Your task to perform on an android device: Open Google Maps Image 0: 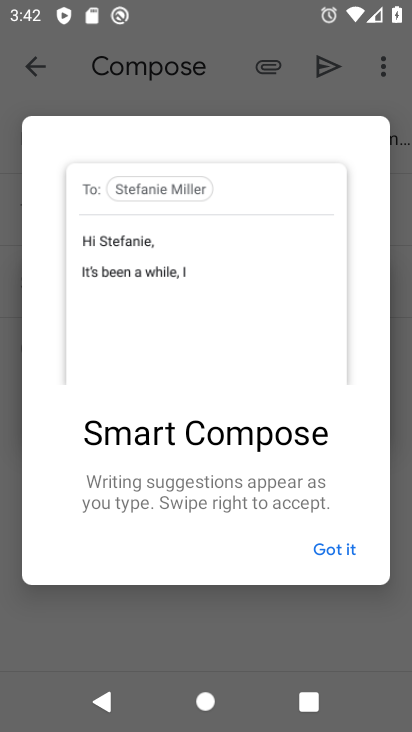
Step 0: press home button
Your task to perform on an android device: Open Google Maps Image 1: 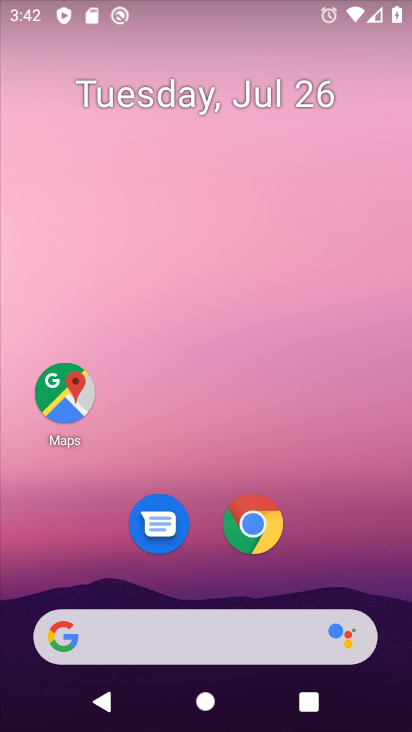
Step 1: click (64, 383)
Your task to perform on an android device: Open Google Maps Image 2: 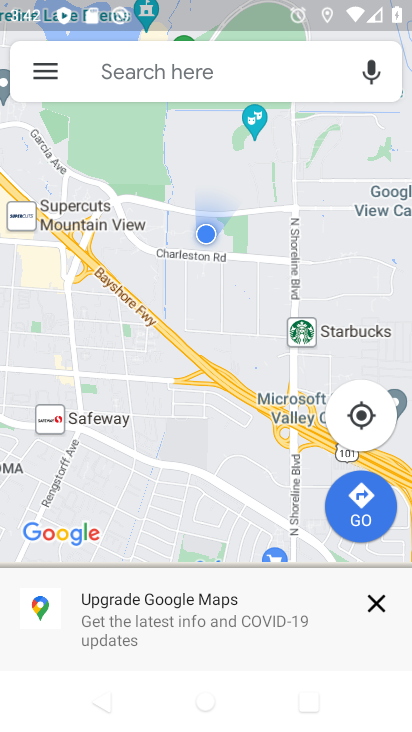
Step 2: task complete